Your task to perform on an android device: delete browsing data in the chrome app Image 0: 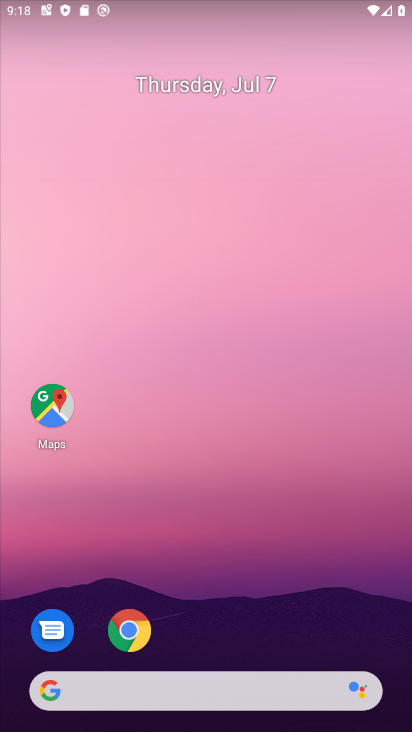
Step 0: click (135, 643)
Your task to perform on an android device: delete browsing data in the chrome app Image 1: 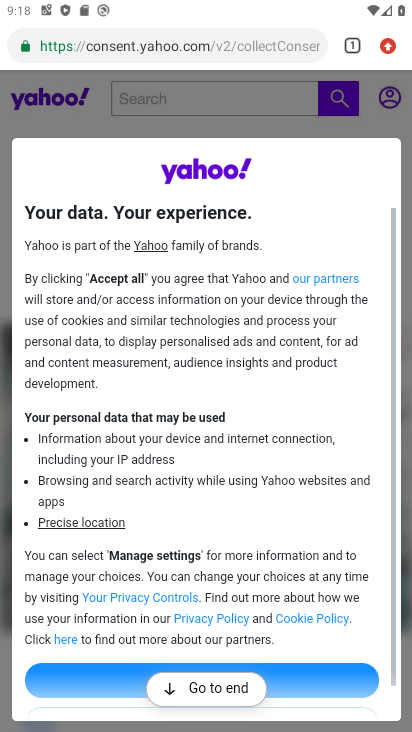
Step 1: click (391, 44)
Your task to perform on an android device: delete browsing data in the chrome app Image 2: 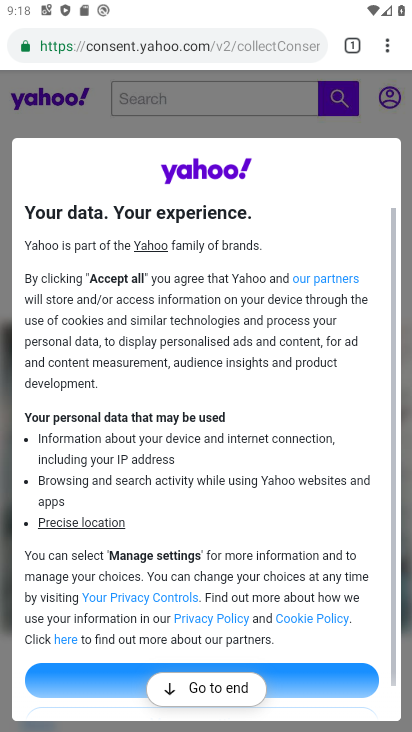
Step 2: click (387, 43)
Your task to perform on an android device: delete browsing data in the chrome app Image 3: 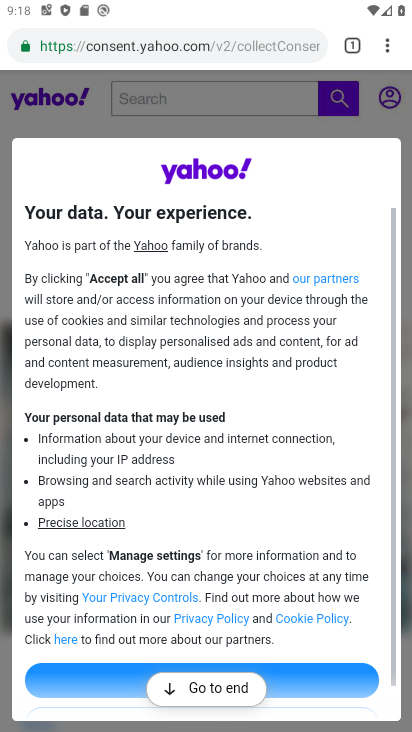
Step 3: click (387, 43)
Your task to perform on an android device: delete browsing data in the chrome app Image 4: 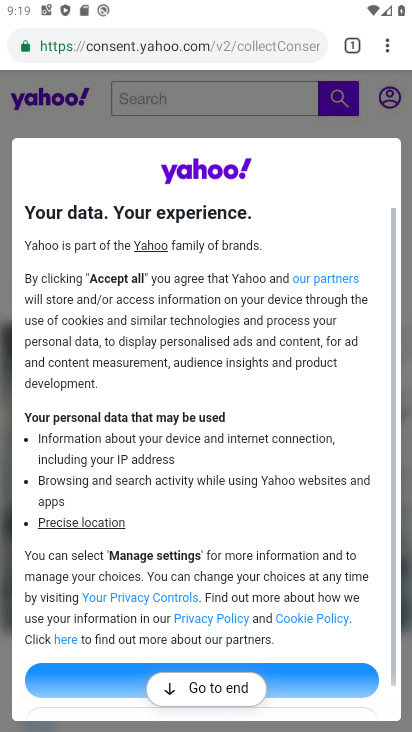
Step 4: click (387, 43)
Your task to perform on an android device: delete browsing data in the chrome app Image 5: 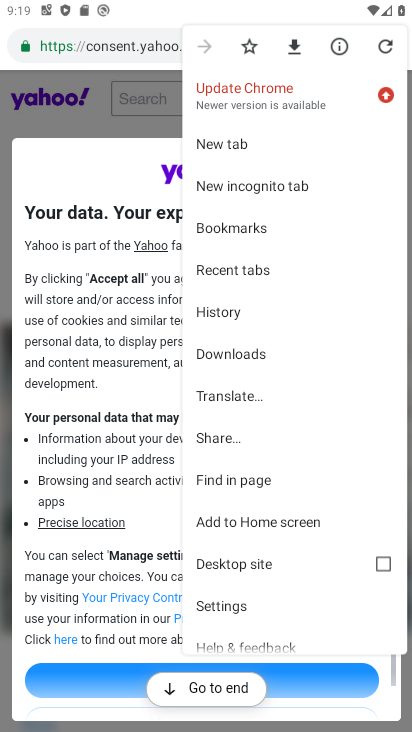
Step 5: click (216, 608)
Your task to perform on an android device: delete browsing data in the chrome app Image 6: 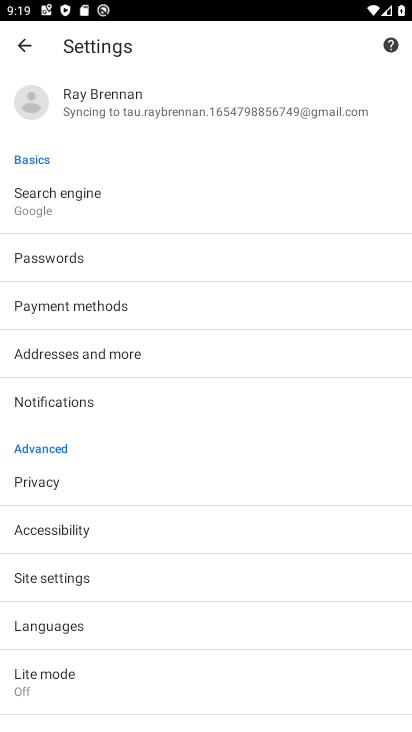
Step 6: click (29, 483)
Your task to perform on an android device: delete browsing data in the chrome app Image 7: 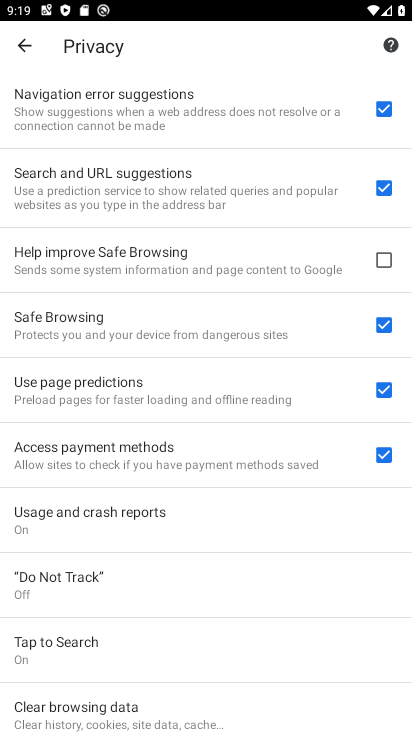
Step 7: drag from (69, 692) to (60, 357)
Your task to perform on an android device: delete browsing data in the chrome app Image 8: 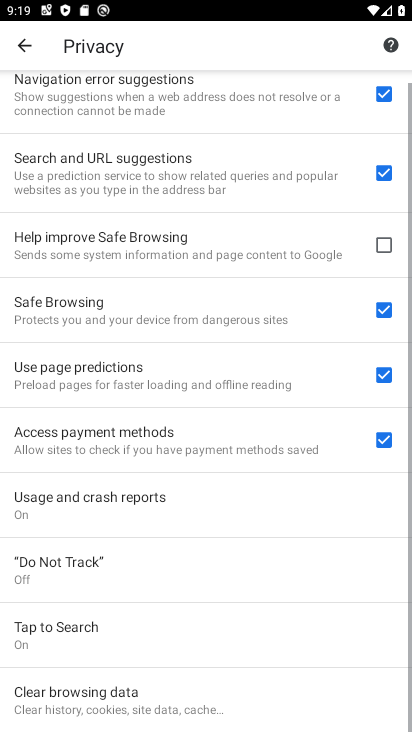
Step 8: click (89, 703)
Your task to perform on an android device: delete browsing data in the chrome app Image 9: 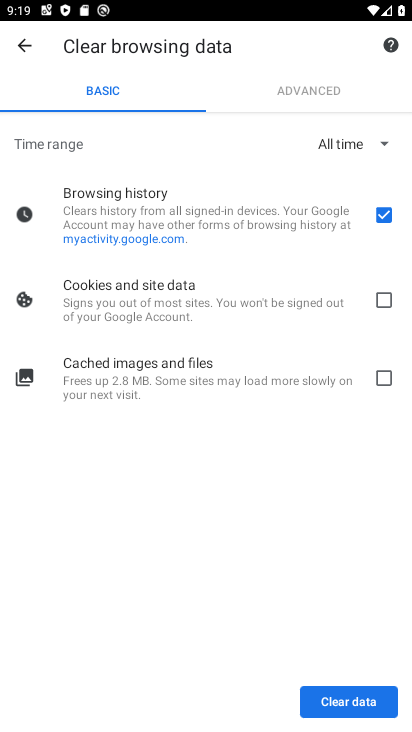
Step 9: click (379, 299)
Your task to perform on an android device: delete browsing data in the chrome app Image 10: 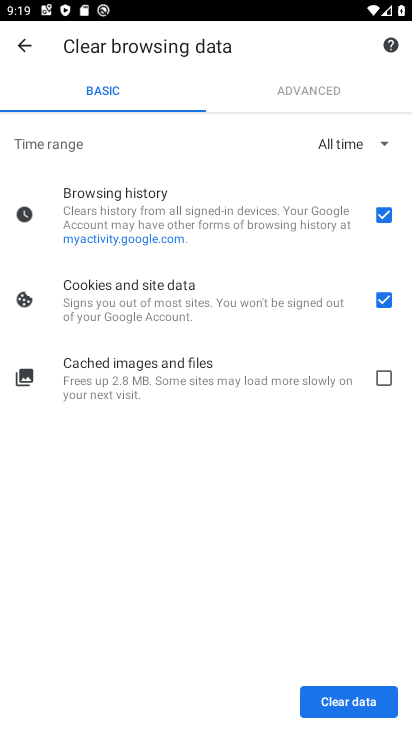
Step 10: click (382, 380)
Your task to perform on an android device: delete browsing data in the chrome app Image 11: 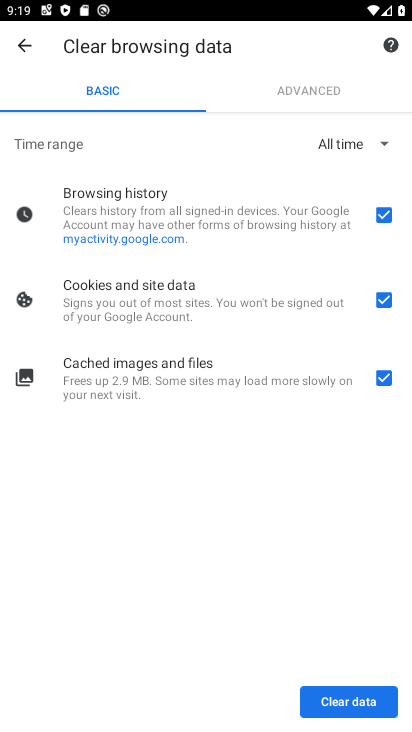
Step 11: click (338, 696)
Your task to perform on an android device: delete browsing data in the chrome app Image 12: 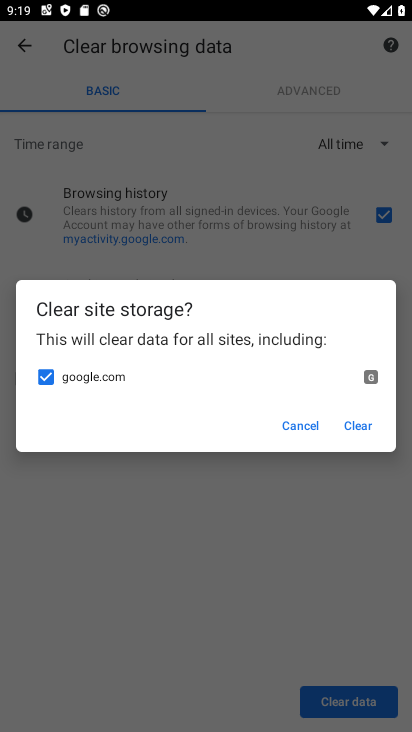
Step 12: click (362, 423)
Your task to perform on an android device: delete browsing data in the chrome app Image 13: 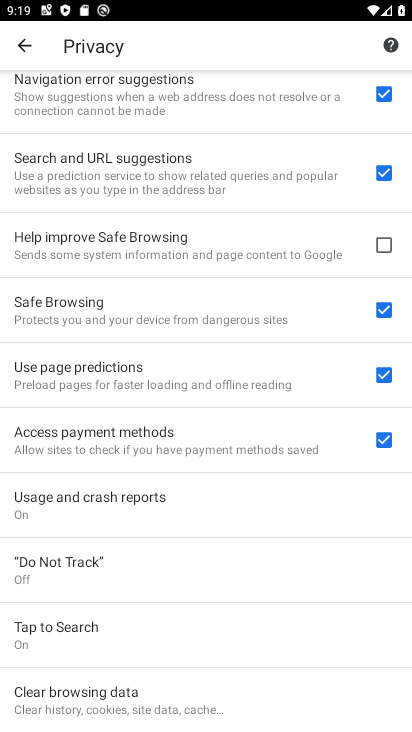
Step 13: task complete